Your task to perform on an android device: What's on my calendar today? Image 0: 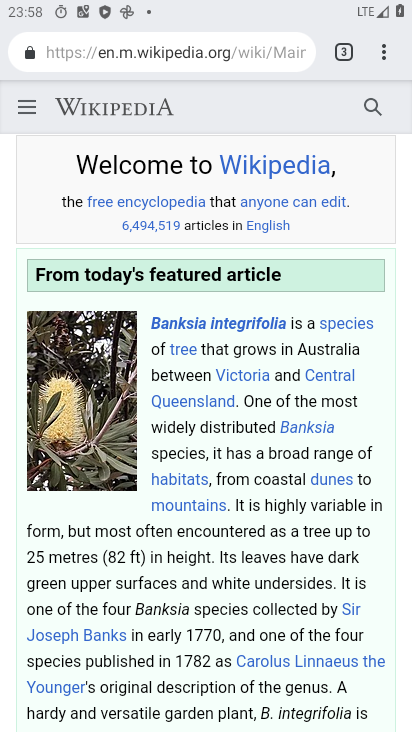
Step 0: press home button
Your task to perform on an android device: What's on my calendar today? Image 1: 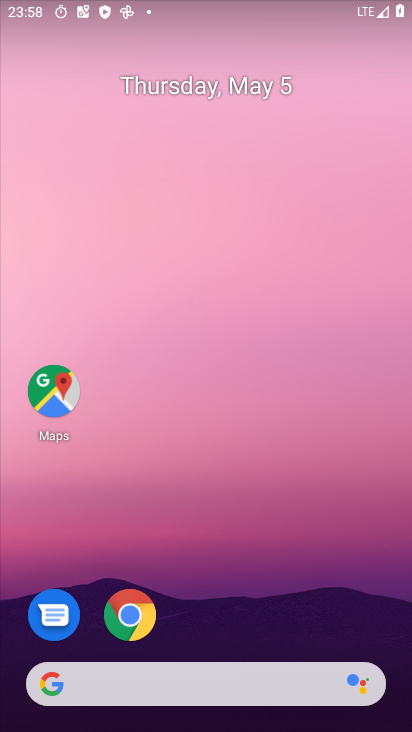
Step 1: drag from (268, 598) to (309, 10)
Your task to perform on an android device: What's on my calendar today? Image 2: 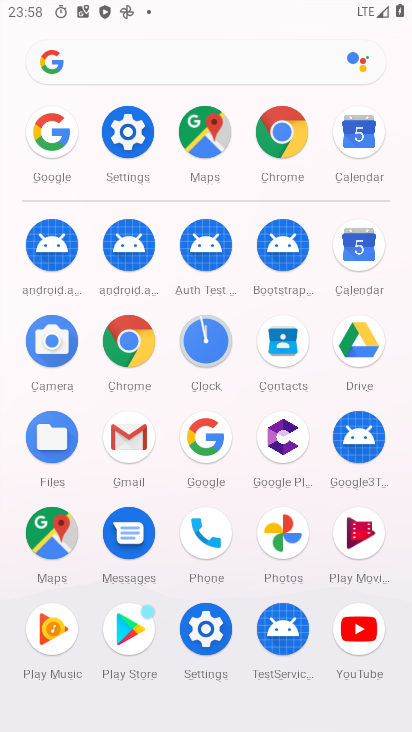
Step 2: click (358, 242)
Your task to perform on an android device: What's on my calendar today? Image 3: 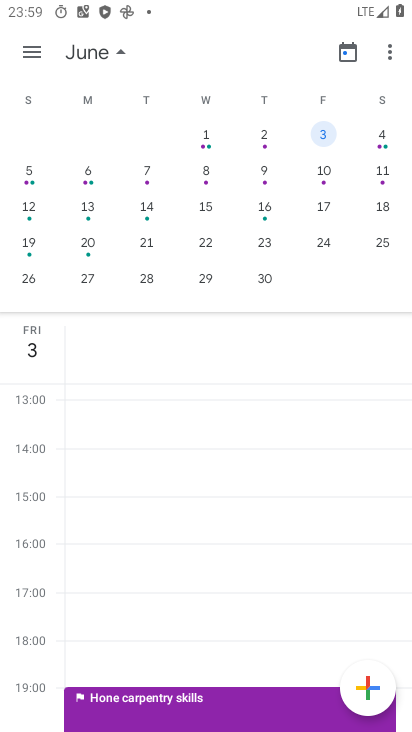
Step 3: drag from (103, 293) to (397, 261)
Your task to perform on an android device: What's on my calendar today? Image 4: 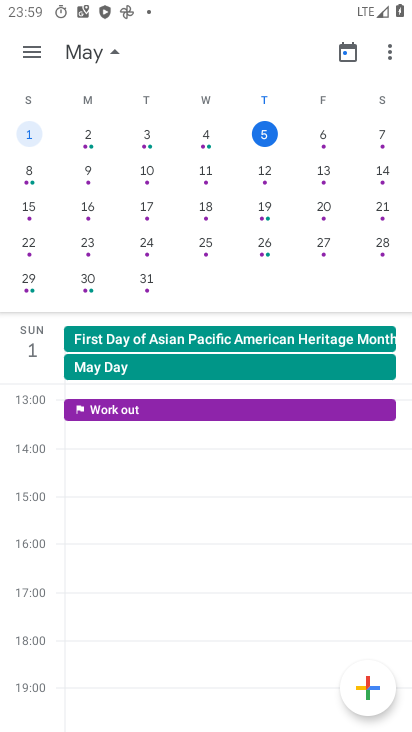
Step 4: click (268, 130)
Your task to perform on an android device: What's on my calendar today? Image 5: 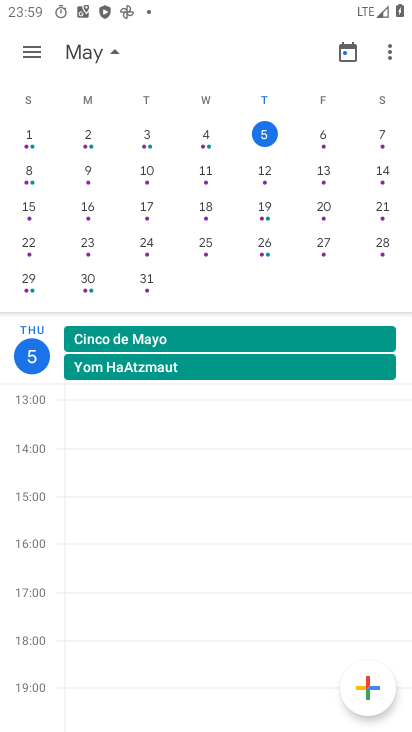
Step 5: task complete